Your task to perform on an android device: Open the map Image 0: 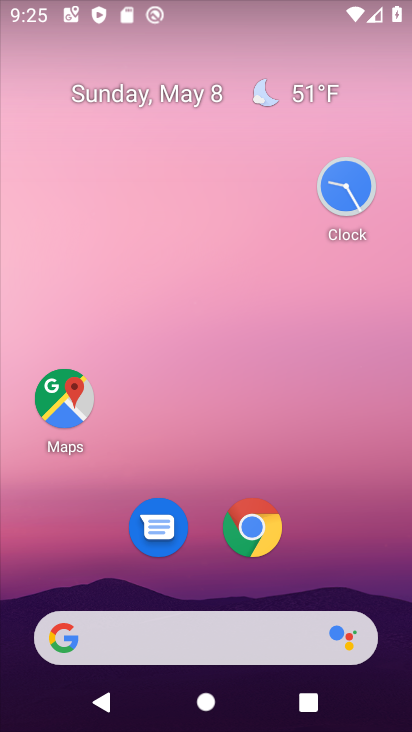
Step 0: click (58, 410)
Your task to perform on an android device: Open the map Image 1: 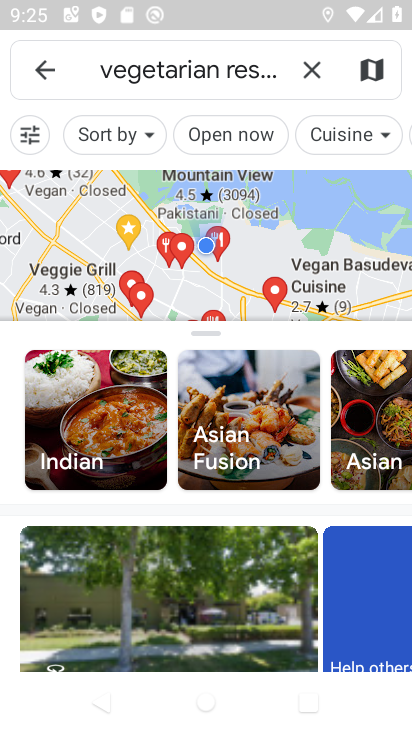
Step 1: task complete